Your task to perform on an android device: Go to sound settings Image 0: 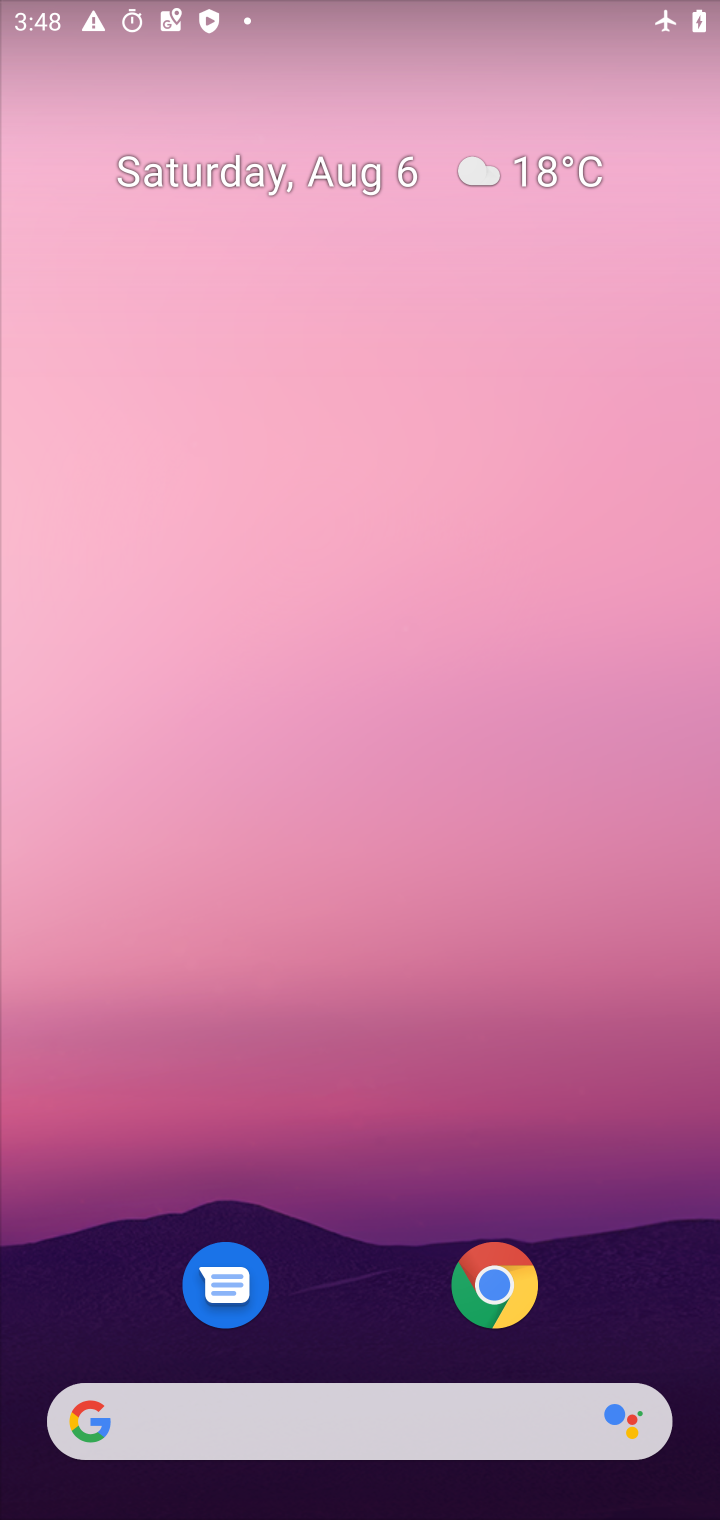
Step 0: drag from (391, 1285) to (540, 49)
Your task to perform on an android device: Go to sound settings Image 1: 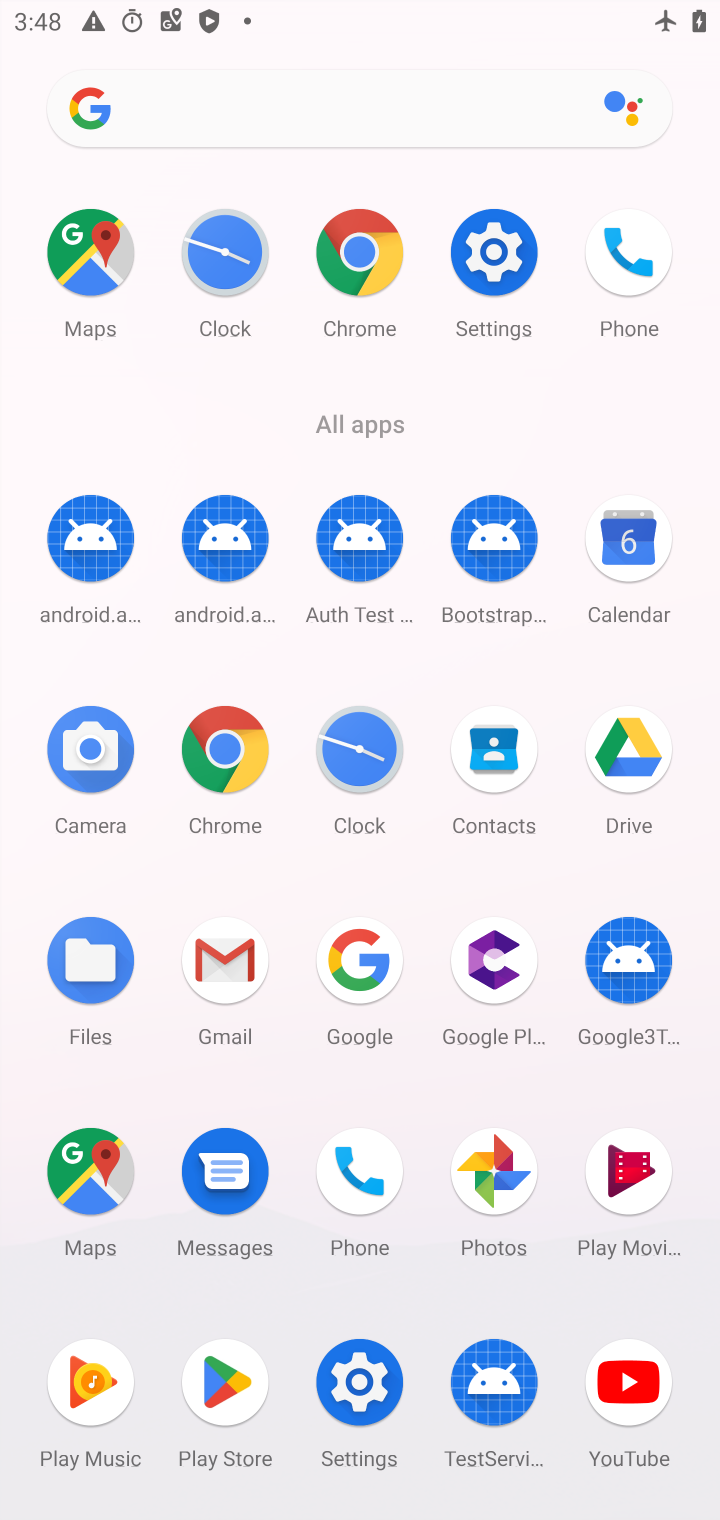
Step 1: click (499, 232)
Your task to perform on an android device: Go to sound settings Image 2: 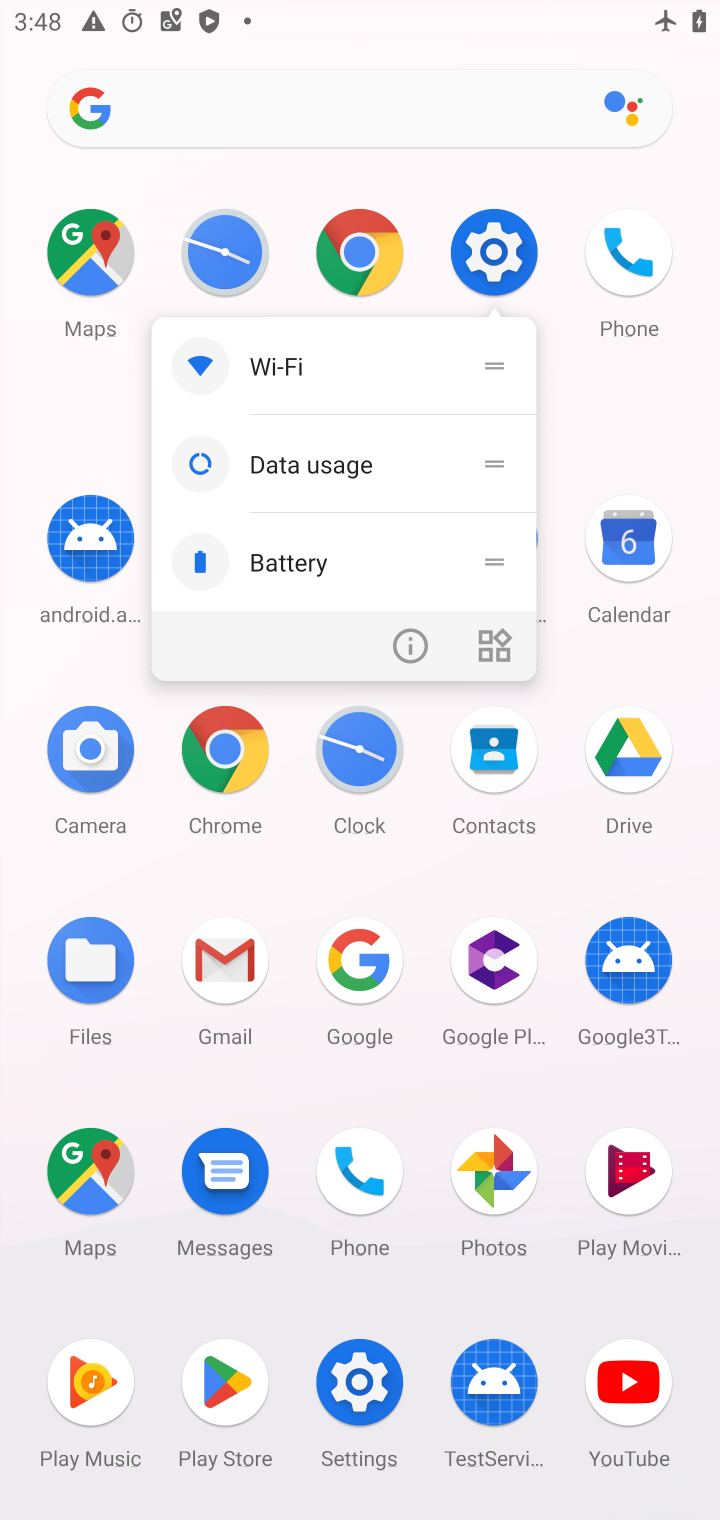
Step 2: click (494, 238)
Your task to perform on an android device: Go to sound settings Image 3: 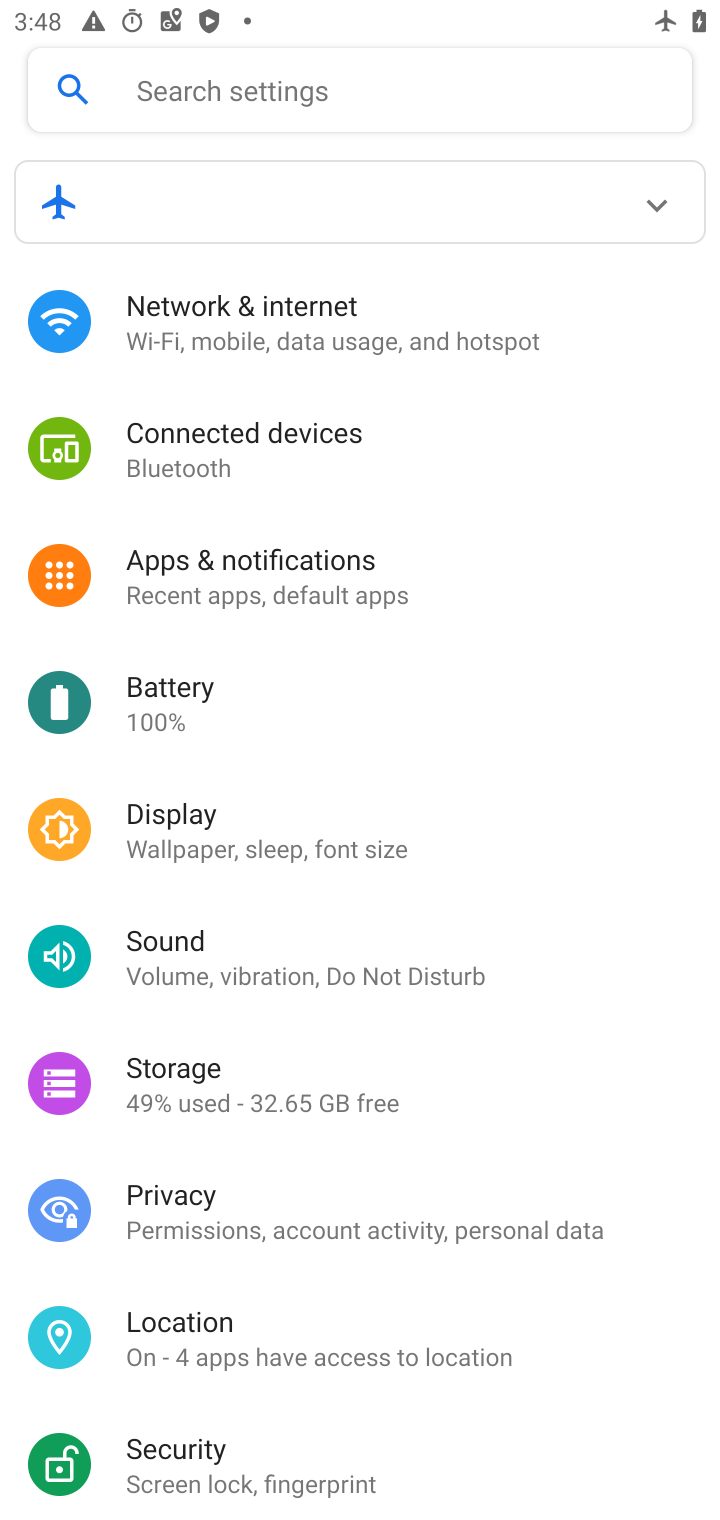
Step 3: click (230, 951)
Your task to perform on an android device: Go to sound settings Image 4: 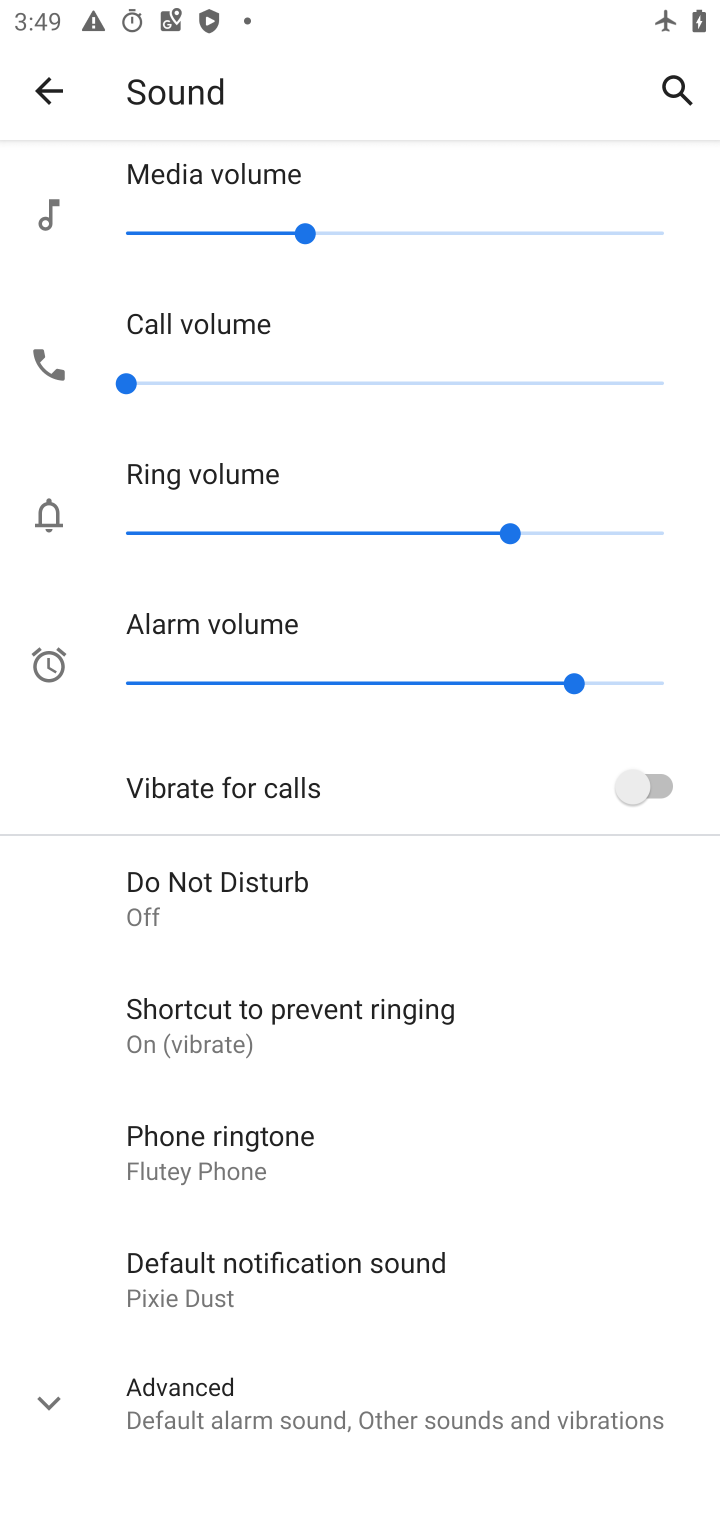
Step 4: click (58, 1386)
Your task to perform on an android device: Go to sound settings Image 5: 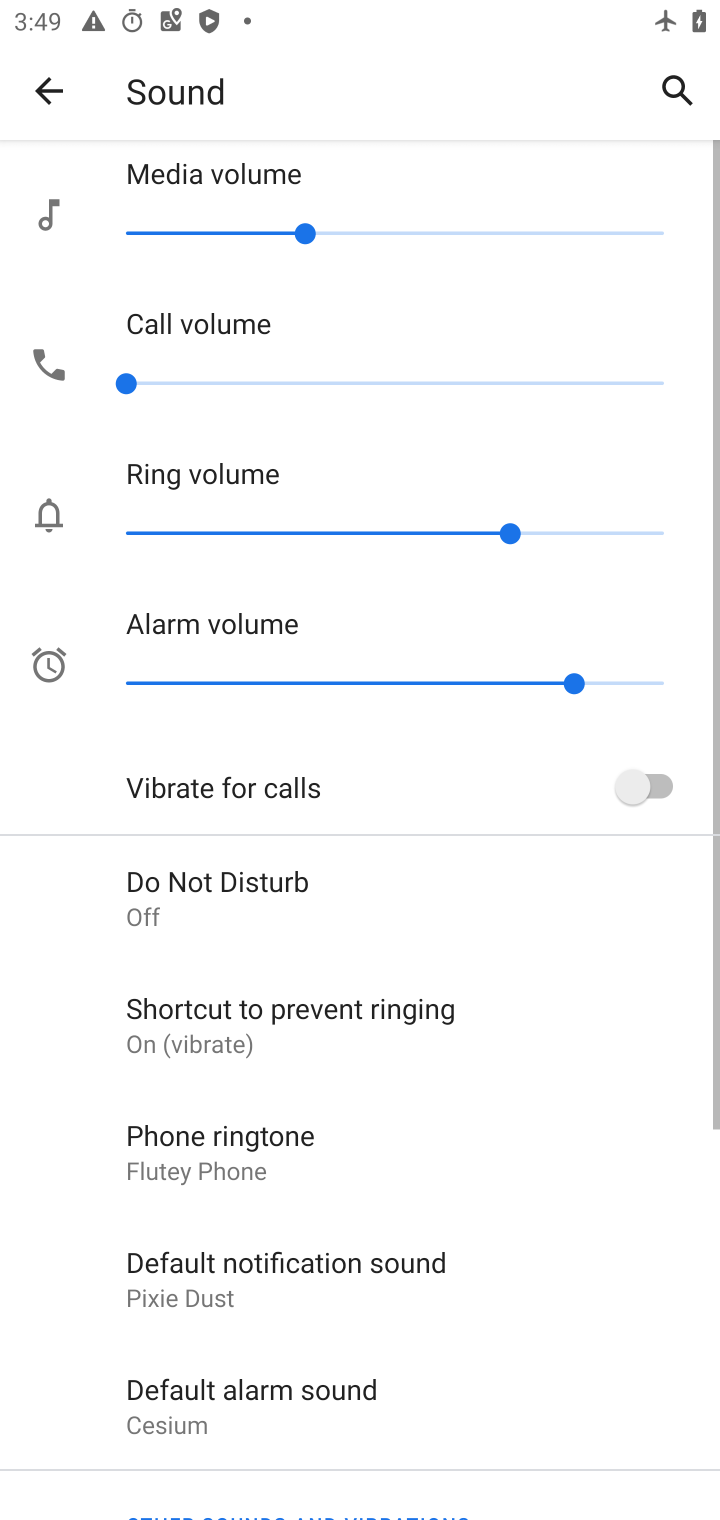
Step 5: task complete